Your task to perform on an android device: see tabs open on other devices in the chrome app Image 0: 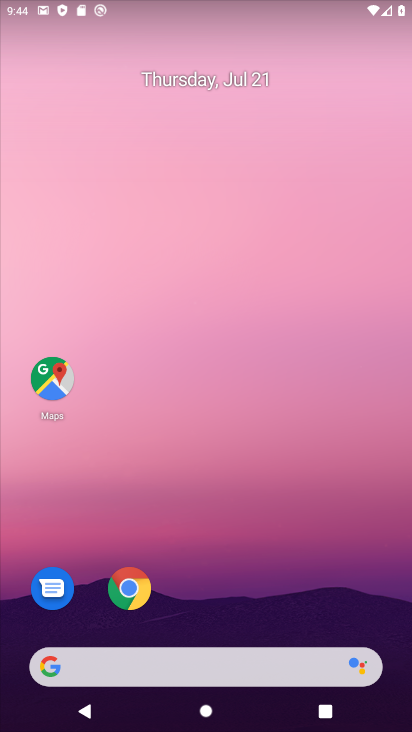
Step 0: click (134, 588)
Your task to perform on an android device: see tabs open on other devices in the chrome app Image 1: 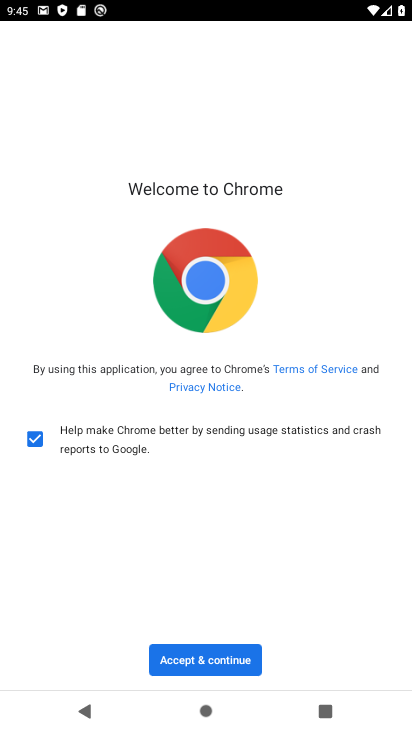
Step 1: click (178, 660)
Your task to perform on an android device: see tabs open on other devices in the chrome app Image 2: 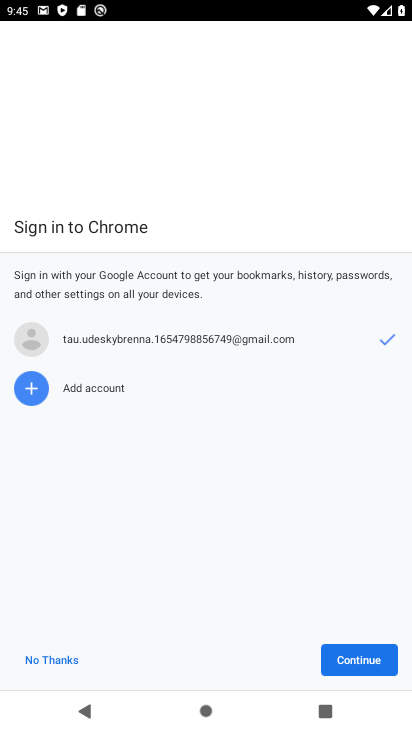
Step 2: click (347, 655)
Your task to perform on an android device: see tabs open on other devices in the chrome app Image 3: 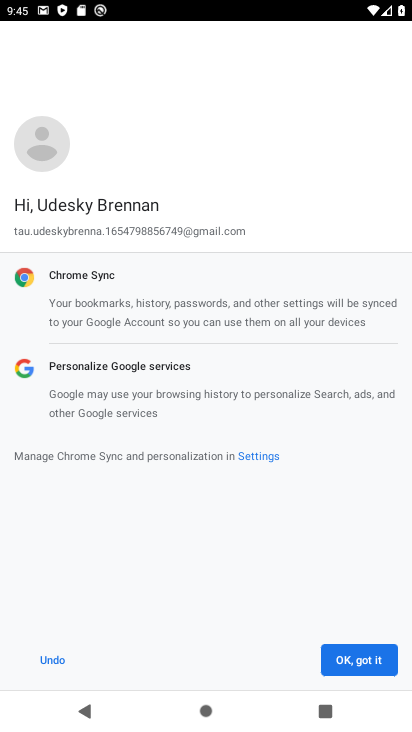
Step 3: click (379, 657)
Your task to perform on an android device: see tabs open on other devices in the chrome app Image 4: 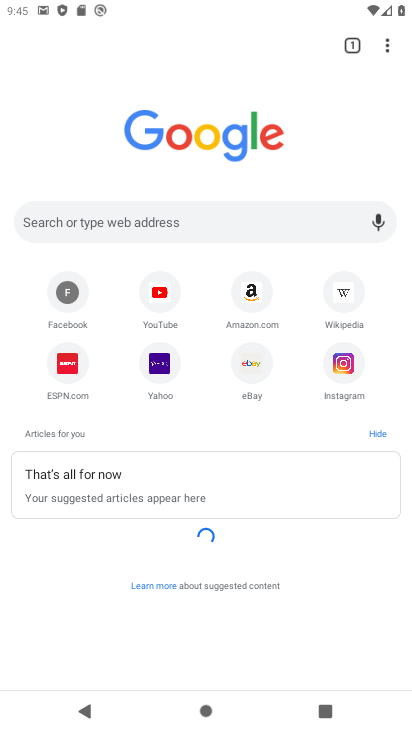
Step 4: task complete